Your task to perform on an android device: toggle sleep mode Image 0: 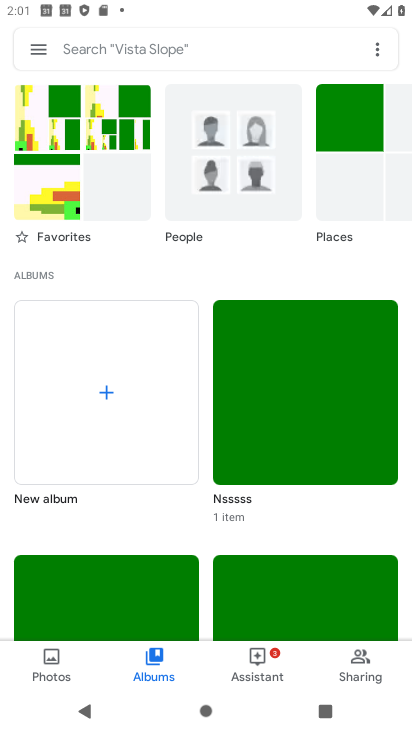
Step 0: task complete